Your task to perform on an android device: Go to notification settings Image 0: 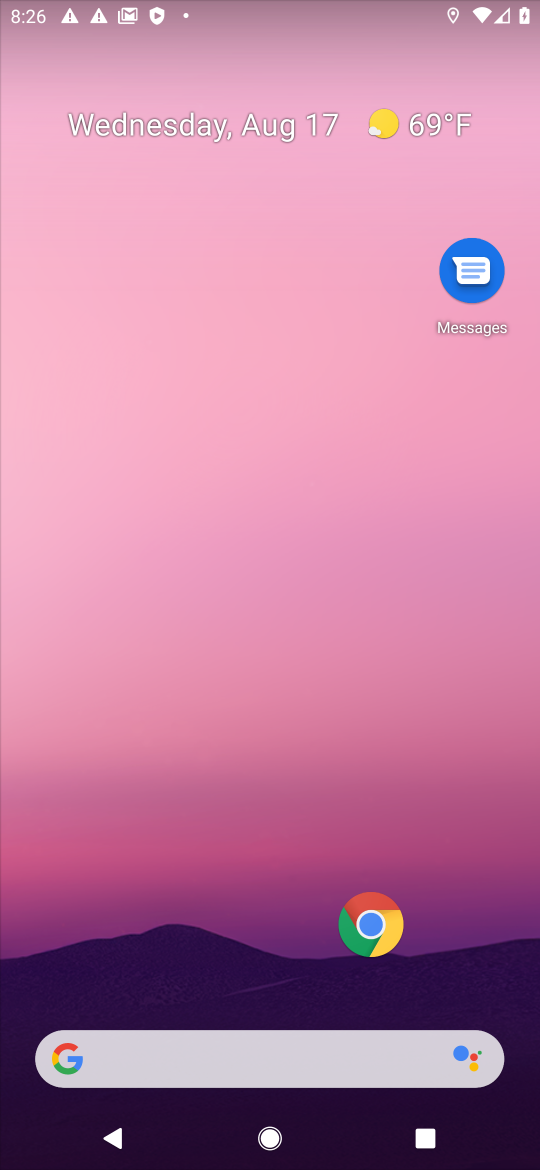
Step 0: drag from (257, 887) to (363, 37)
Your task to perform on an android device: Go to notification settings Image 1: 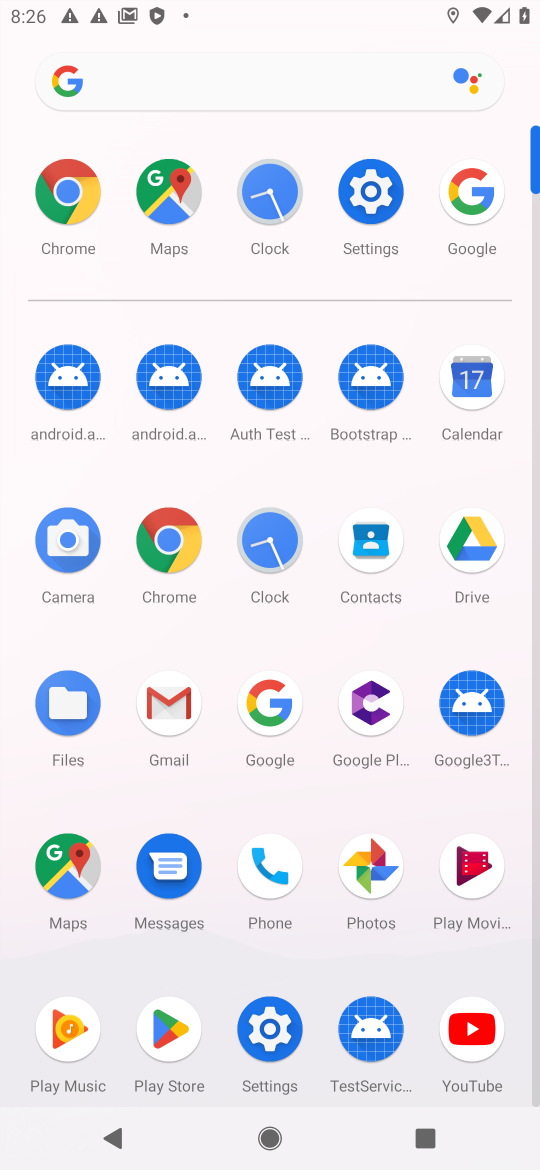
Step 1: click (278, 1032)
Your task to perform on an android device: Go to notification settings Image 2: 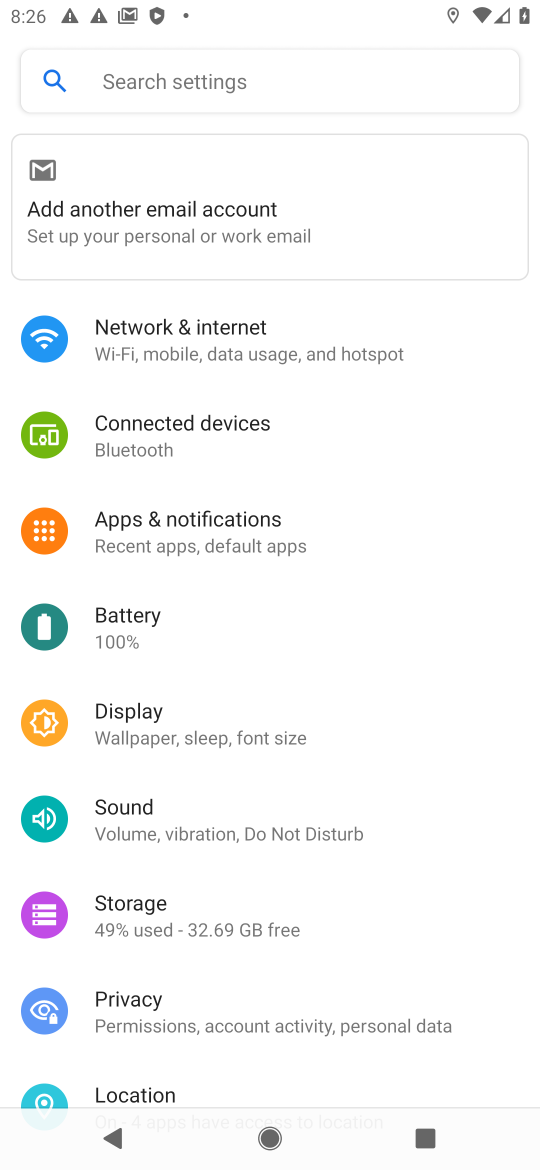
Step 2: click (240, 517)
Your task to perform on an android device: Go to notification settings Image 3: 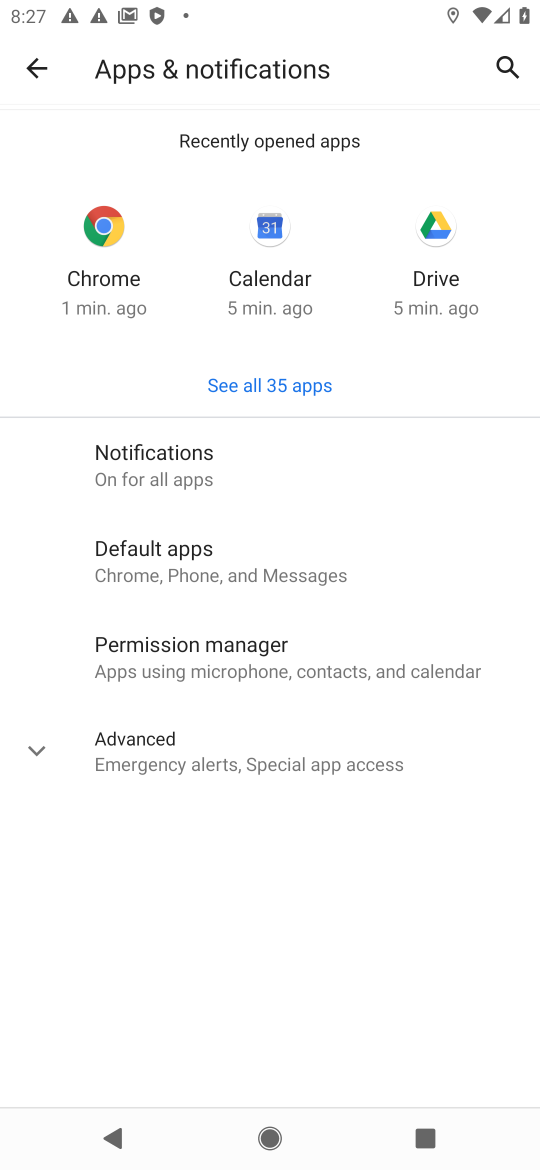
Step 3: click (298, 455)
Your task to perform on an android device: Go to notification settings Image 4: 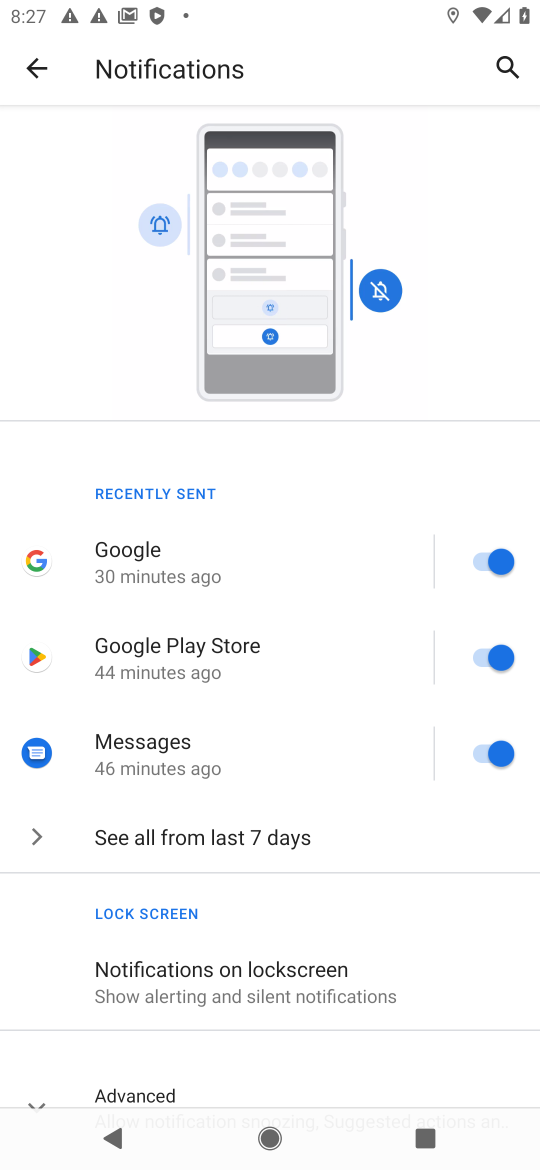
Step 4: task complete